Your task to perform on an android device: Open battery settings Image 0: 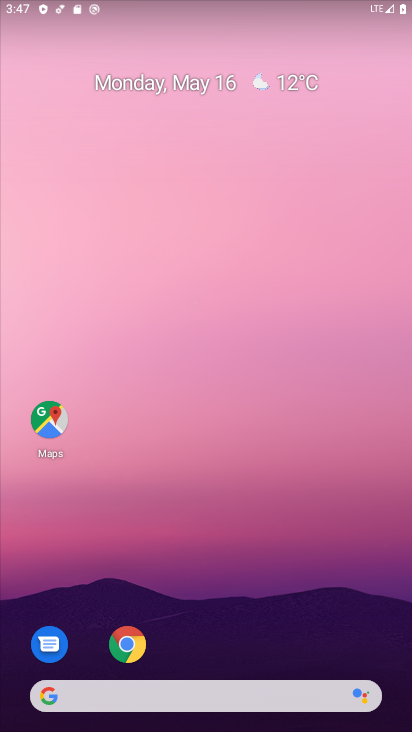
Step 0: drag from (219, 582) to (330, 47)
Your task to perform on an android device: Open battery settings Image 1: 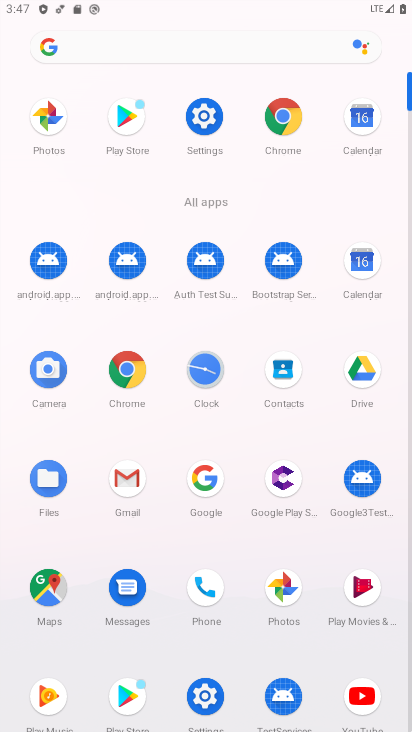
Step 1: click (208, 95)
Your task to perform on an android device: Open battery settings Image 2: 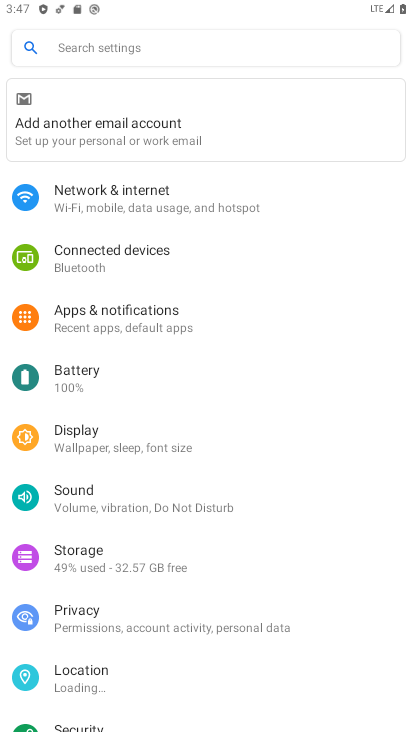
Step 2: click (78, 359)
Your task to perform on an android device: Open battery settings Image 3: 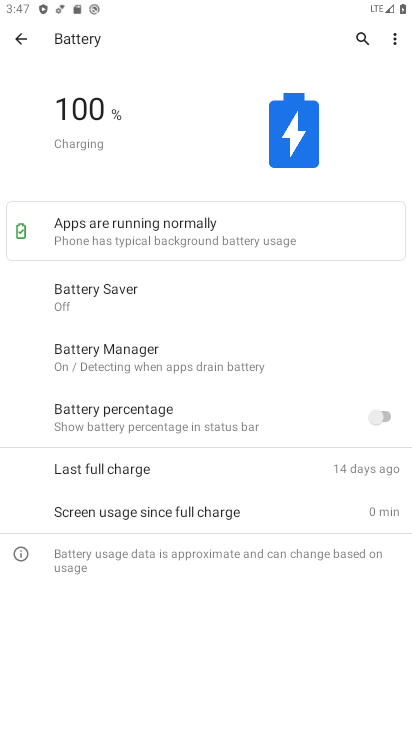
Step 3: task complete